Your task to perform on an android device: Search for vegetarian restaurants on Maps Image 0: 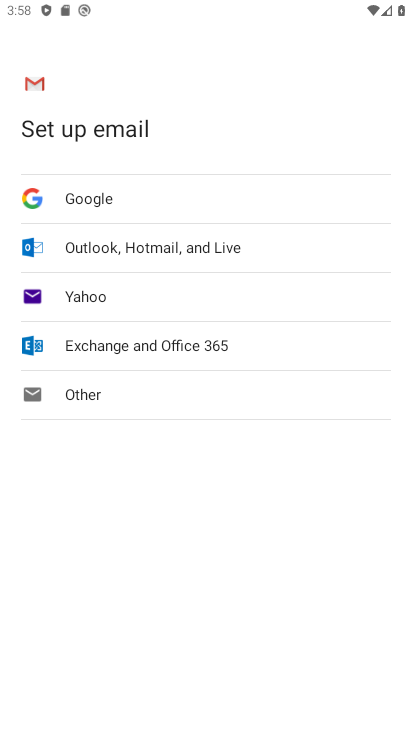
Step 0: press home button
Your task to perform on an android device: Search for vegetarian restaurants on Maps Image 1: 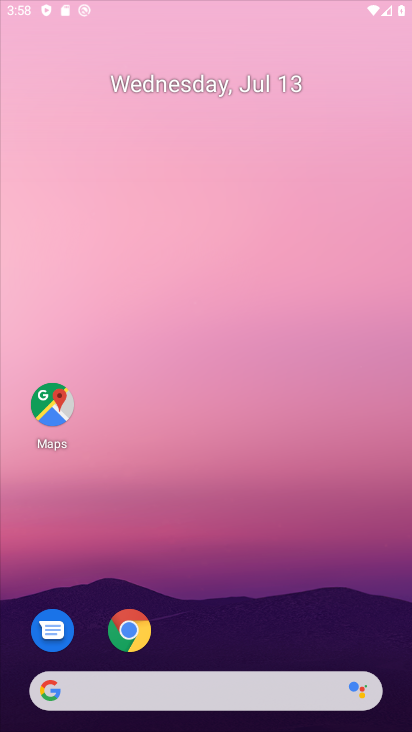
Step 1: drag from (207, 245) to (209, 7)
Your task to perform on an android device: Search for vegetarian restaurants on Maps Image 2: 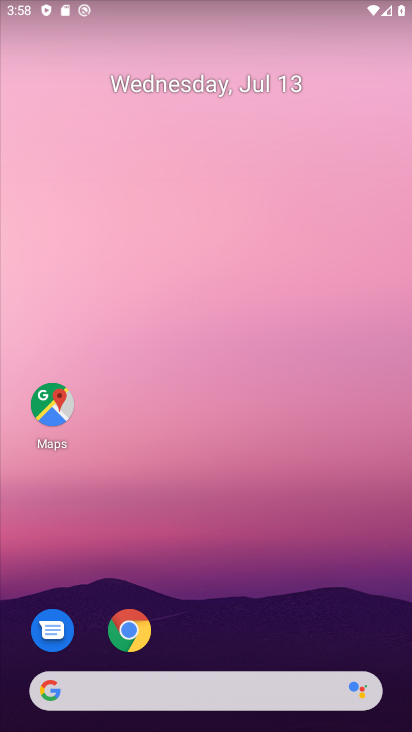
Step 2: drag from (252, 685) to (234, 6)
Your task to perform on an android device: Search for vegetarian restaurants on Maps Image 3: 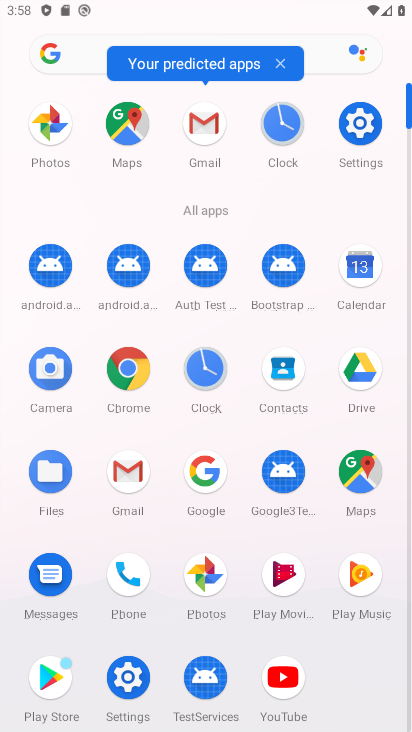
Step 3: click (344, 484)
Your task to perform on an android device: Search for vegetarian restaurants on Maps Image 4: 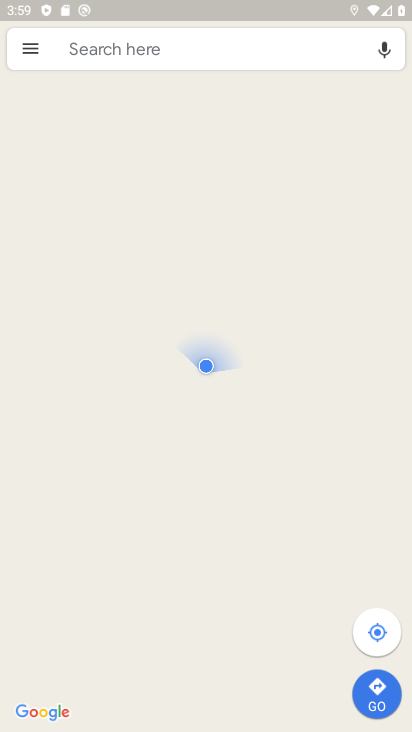
Step 4: click (26, 38)
Your task to perform on an android device: Search for vegetarian restaurants on Maps Image 5: 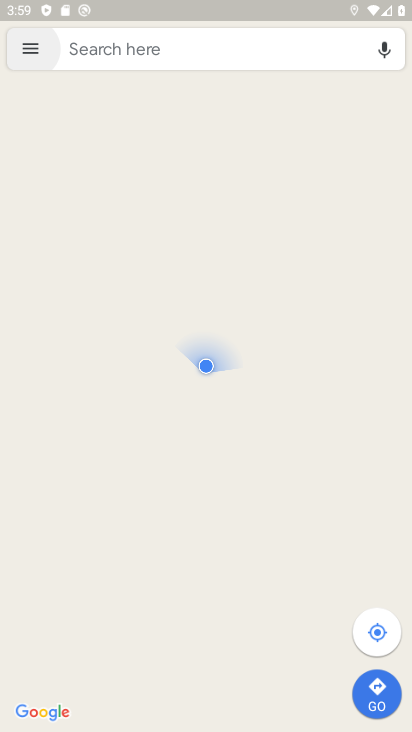
Step 5: click (153, 53)
Your task to perform on an android device: Search for vegetarian restaurants on Maps Image 6: 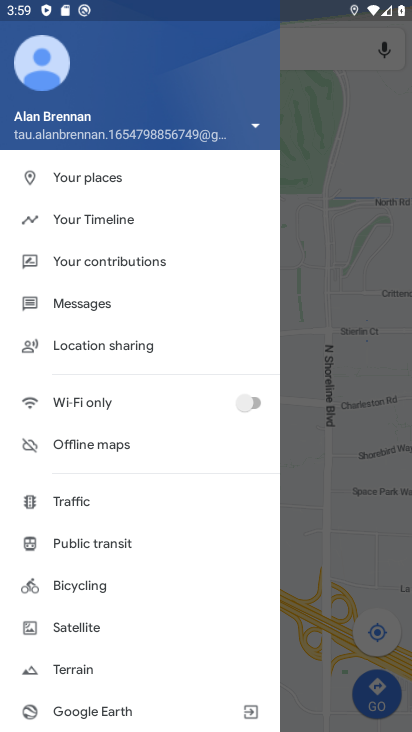
Step 6: click (324, 97)
Your task to perform on an android device: Search for vegetarian restaurants on Maps Image 7: 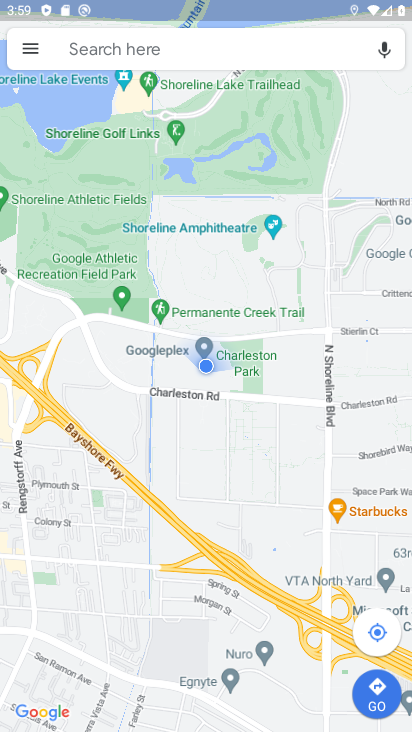
Step 7: click (274, 47)
Your task to perform on an android device: Search for vegetarian restaurants on Maps Image 8: 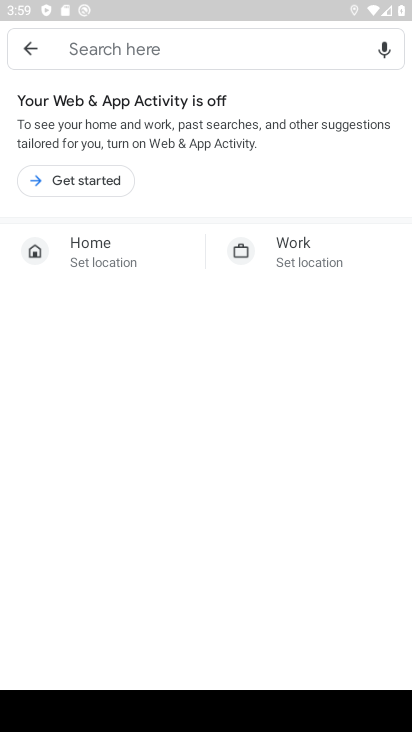
Step 8: type "vegetarian restaurant"
Your task to perform on an android device: Search for vegetarian restaurants on Maps Image 9: 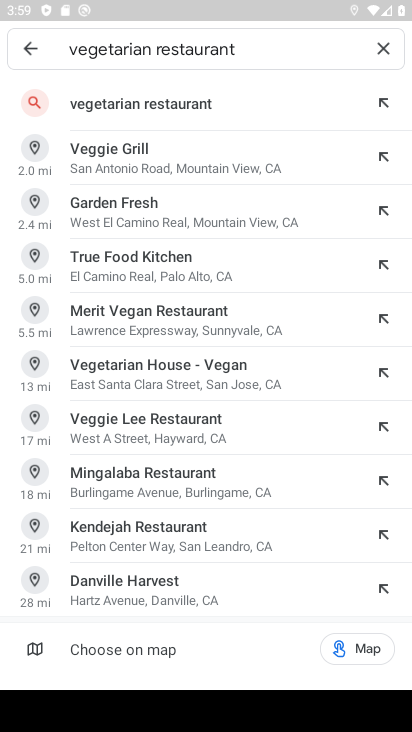
Step 9: click (147, 114)
Your task to perform on an android device: Search for vegetarian restaurants on Maps Image 10: 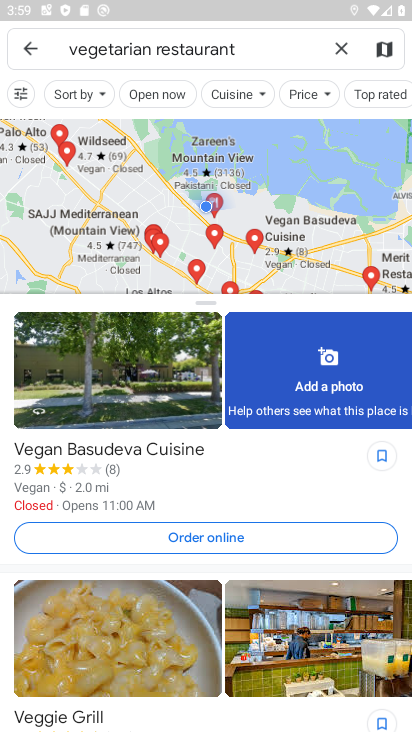
Step 10: task complete